Your task to perform on an android device: Open internet settings Image 0: 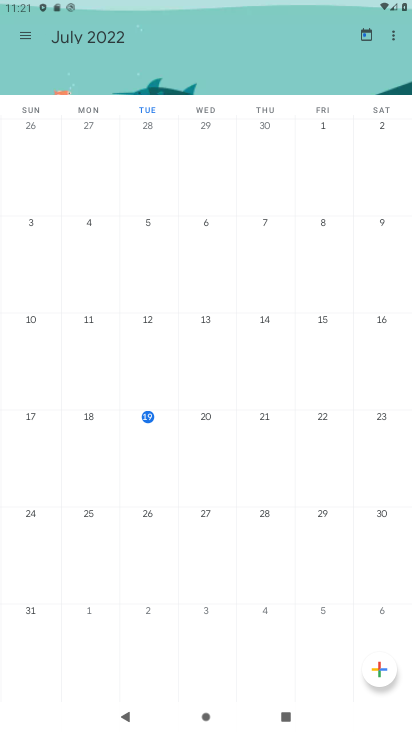
Step 0: press home button
Your task to perform on an android device: Open internet settings Image 1: 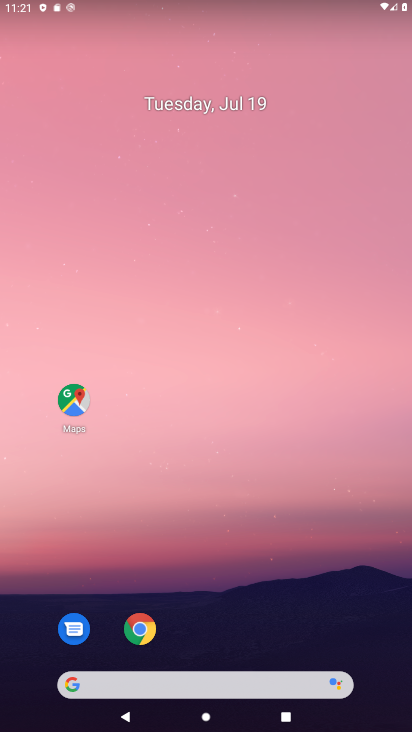
Step 1: drag from (337, 606) to (324, 93)
Your task to perform on an android device: Open internet settings Image 2: 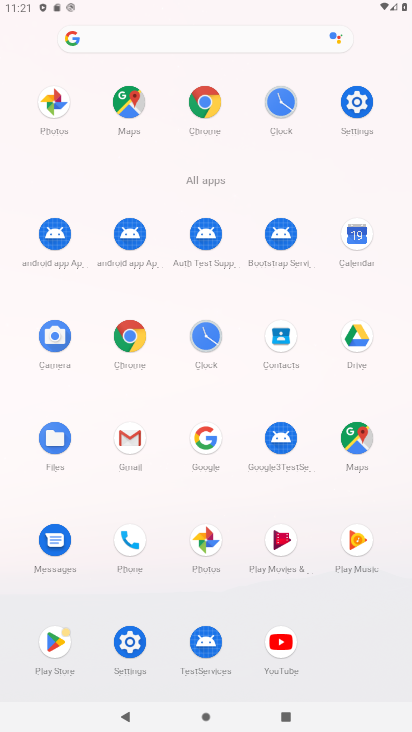
Step 2: click (362, 111)
Your task to perform on an android device: Open internet settings Image 3: 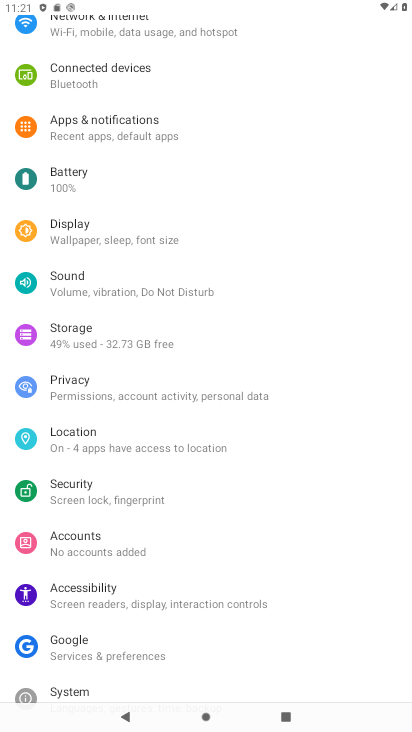
Step 3: drag from (326, 271) to (333, 366)
Your task to perform on an android device: Open internet settings Image 4: 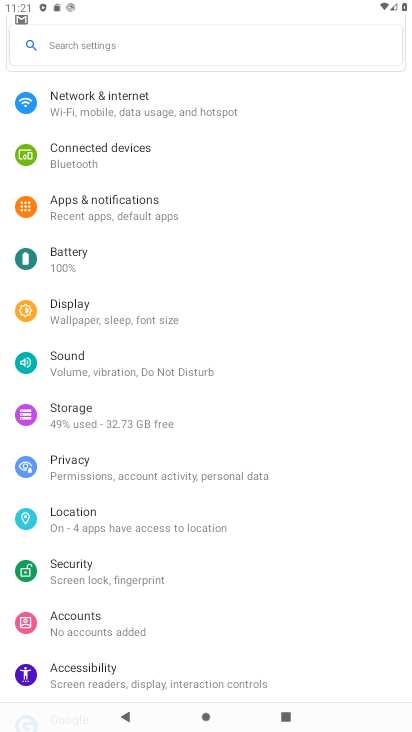
Step 4: drag from (337, 237) to (350, 362)
Your task to perform on an android device: Open internet settings Image 5: 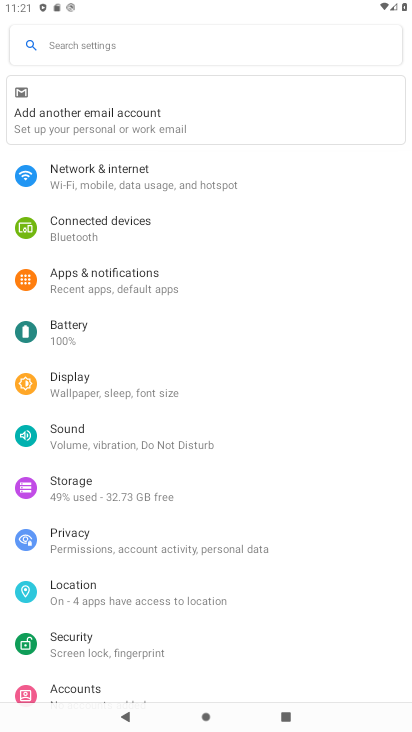
Step 5: drag from (333, 246) to (340, 351)
Your task to perform on an android device: Open internet settings Image 6: 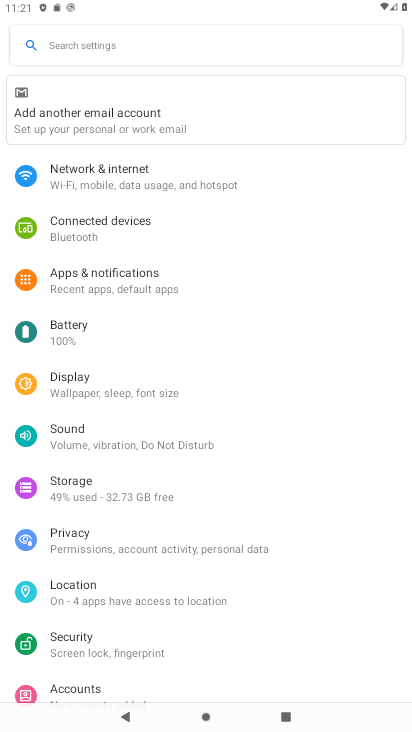
Step 6: click (191, 181)
Your task to perform on an android device: Open internet settings Image 7: 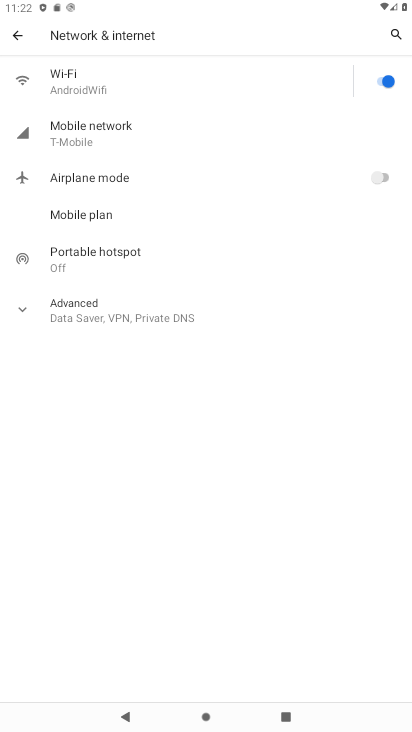
Step 7: task complete